Your task to perform on an android device: clear history in the chrome app Image 0: 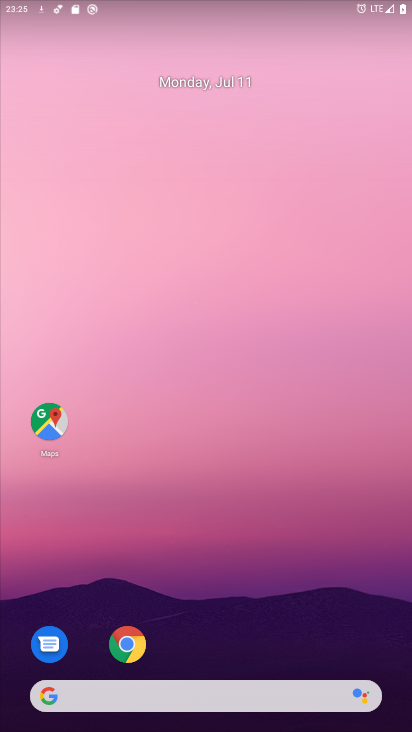
Step 0: drag from (228, 647) to (232, 430)
Your task to perform on an android device: clear history in the chrome app Image 1: 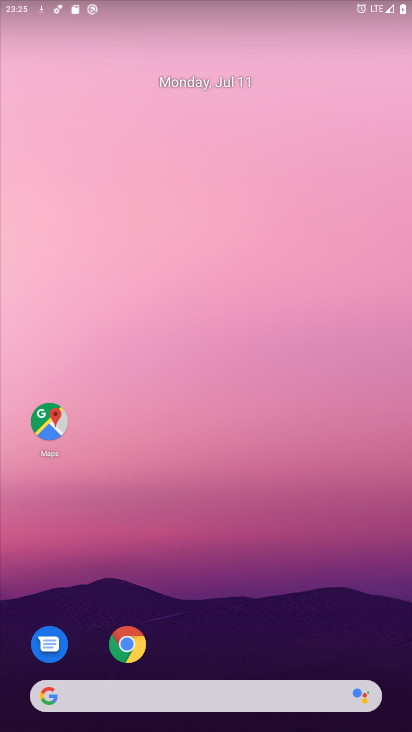
Step 1: drag from (201, 661) to (227, 101)
Your task to perform on an android device: clear history in the chrome app Image 2: 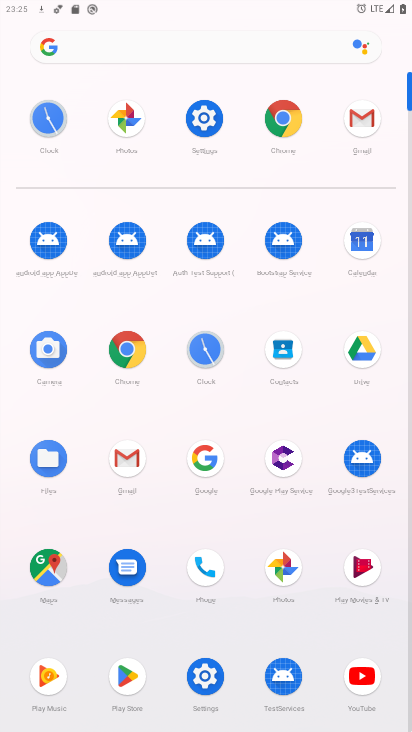
Step 2: click (276, 108)
Your task to perform on an android device: clear history in the chrome app Image 3: 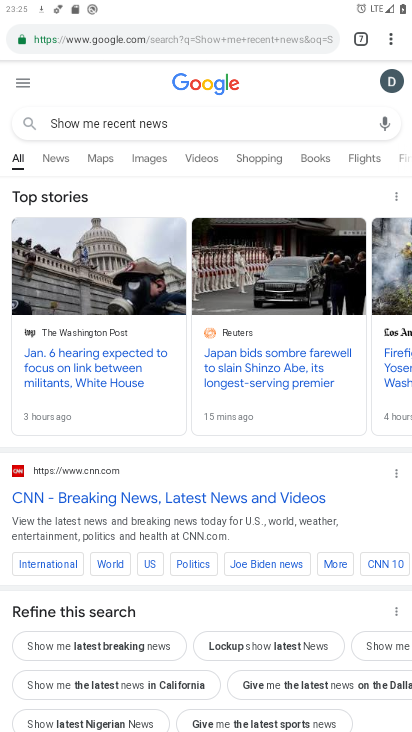
Step 3: click (397, 39)
Your task to perform on an android device: clear history in the chrome app Image 4: 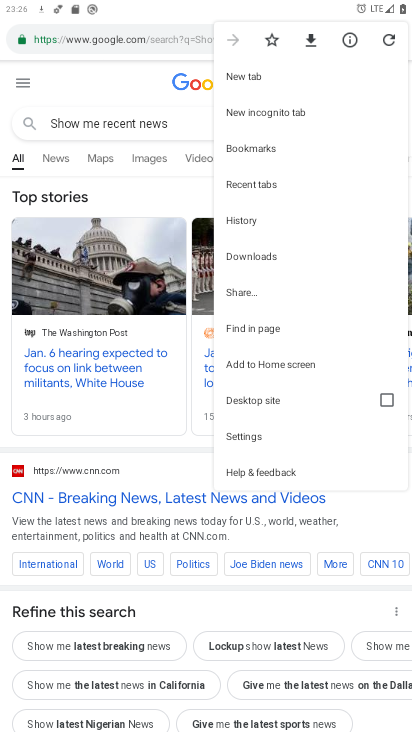
Step 4: click (277, 437)
Your task to perform on an android device: clear history in the chrome app Image 5: 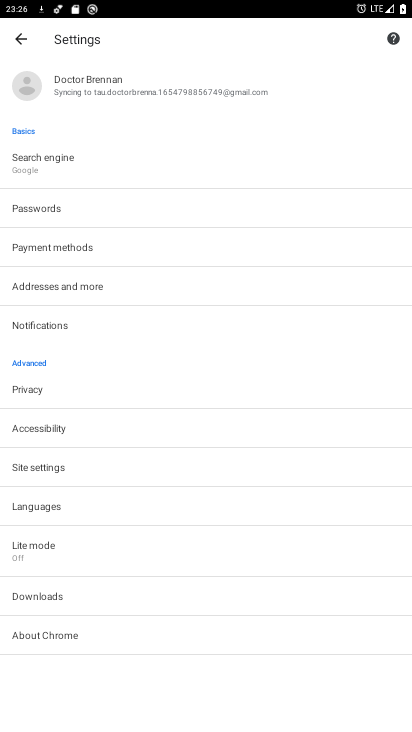
Step 5: click (24, 41)
Your task to perform on an android device: clear history in the chrome app Image 6: 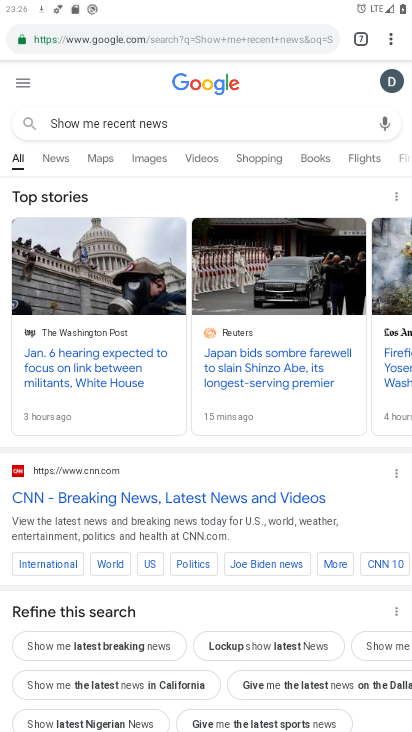
Step 6: click (387, 46)
Your task to perform on an android device: clear history in the chrome app Image 7: 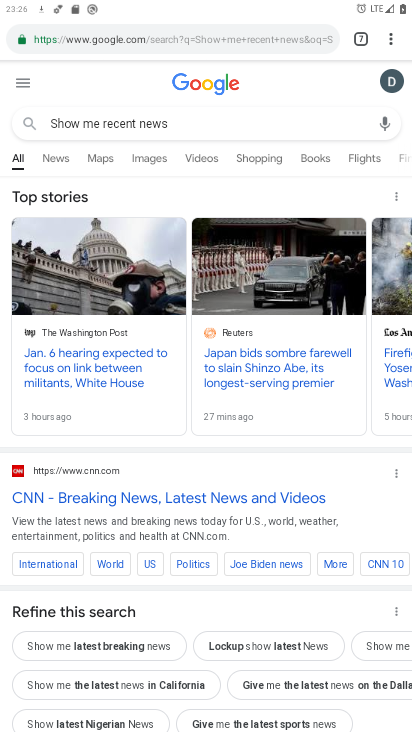
Step 7: click (395, 36)
Your task to perform on an android device: clear history in the chrome app Image 8: 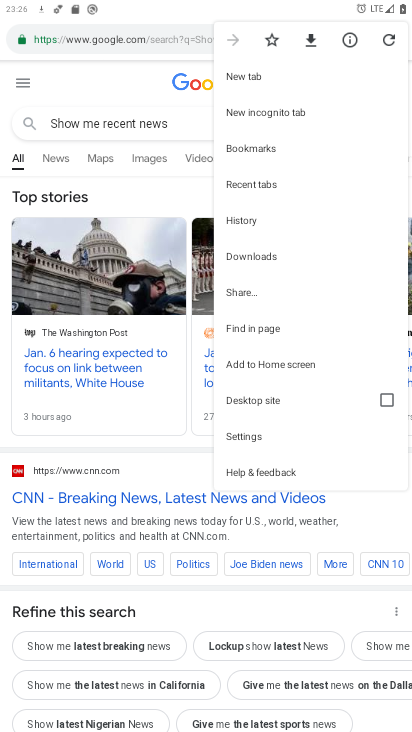
Step 8: click (273, 226)
Your task to perform on an android device: clear history in the chrome app Image 9: 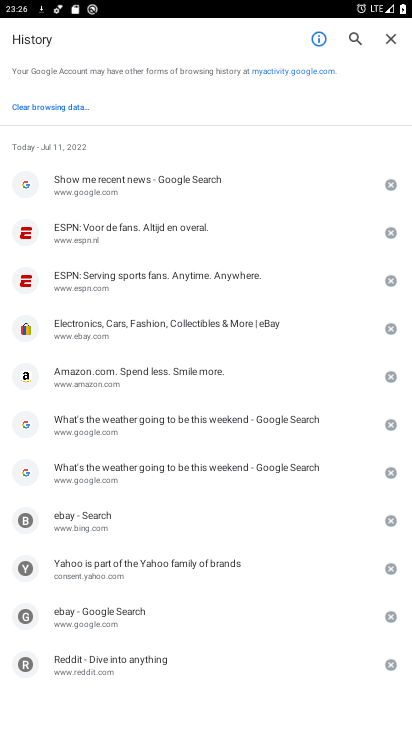
Step 9: click (55, 100)
Your task to perform on an android device: clear history in the chrome app Image 10: 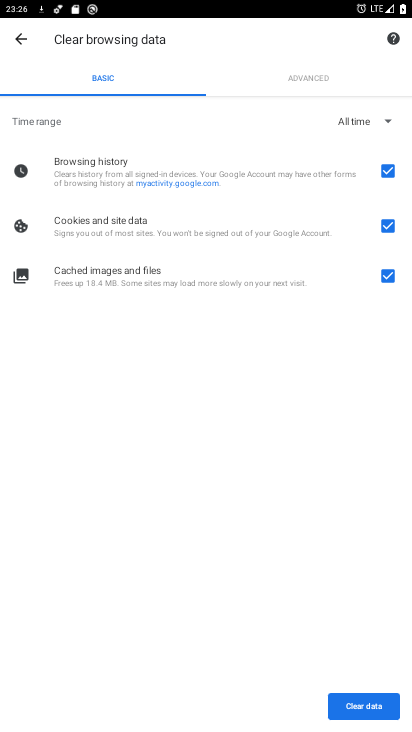
Step 10: click (402, 705)
Your task to perform on an android device: clear history in the chrome app Image 11: 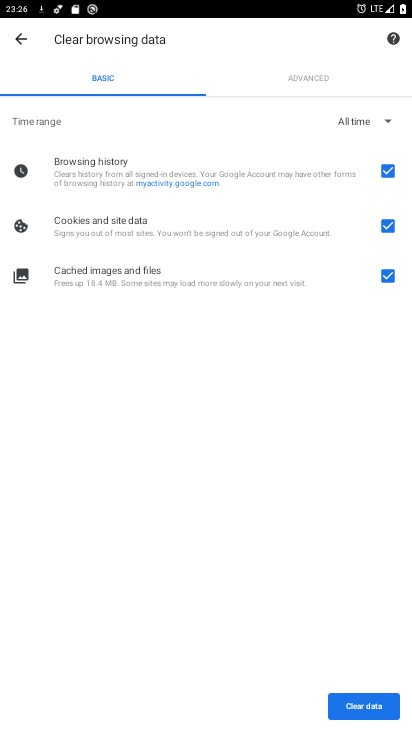
Step 11: click (368, 688)
Your task to perform on an android device: clear history in the chrome app Image 12: 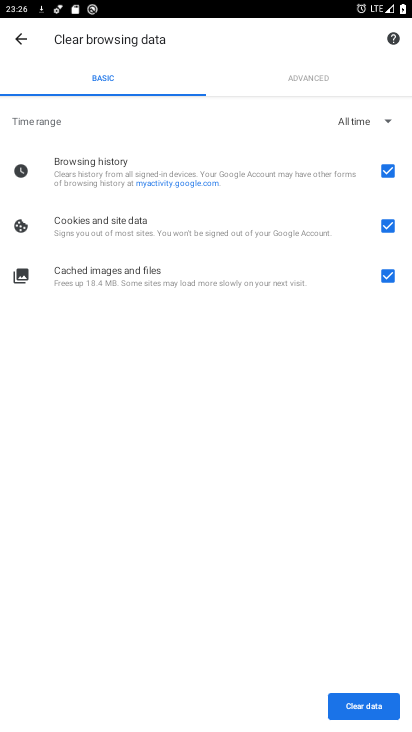
Step 12: click (355, 699)
Your task to perform on an android device: clear history in the chrome app Image 13: 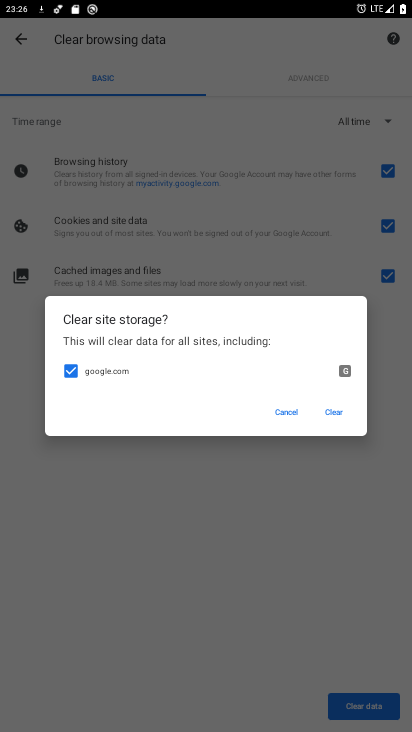
Step 13: click (329, 421)
Your task to perform on an android device: clear history in the chrome app Image 14: 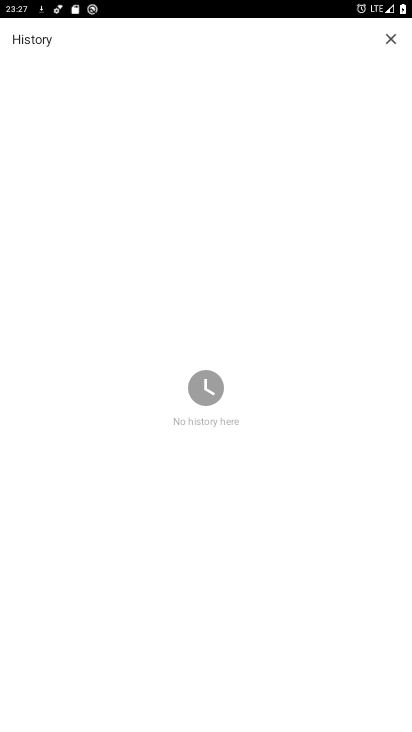
Step 14: task complete